Your task to perform on an android device: visit the assistant section in the google photos Image 0: 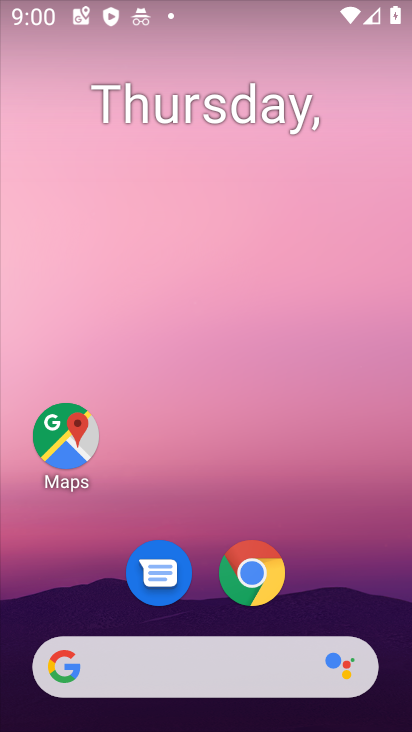
Step 0: drag from (332, 554) to (321, 221)
Your task to perform on an android device: visit the assistant section in the google photos Image 1: 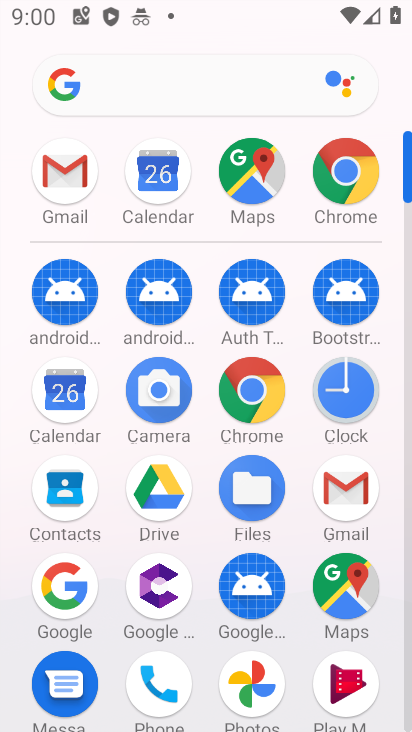
Step 1: click (248, 681)
Your task to perform on an android device: visit the assistant section in the google photos Image 2: 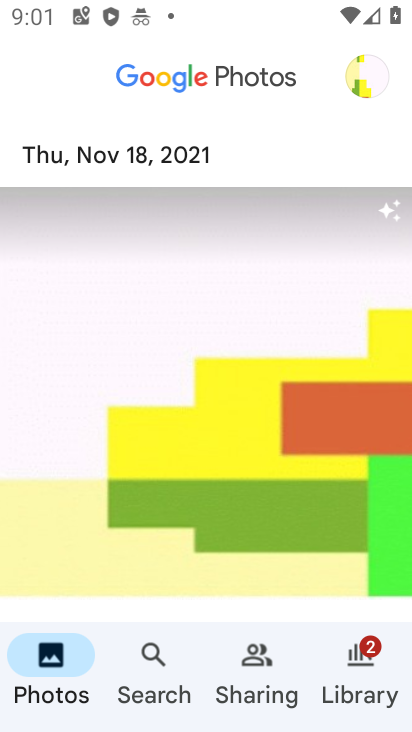
Step 2: click (360, 666)
Your task to perform on an android device: visit the assistant section in the google photos Image 3: 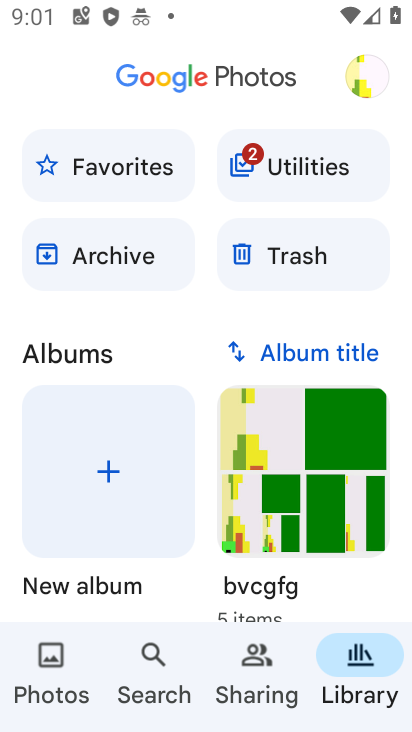
Step 3: task complete